Your task to perform on an android device: check battery use Image 0: 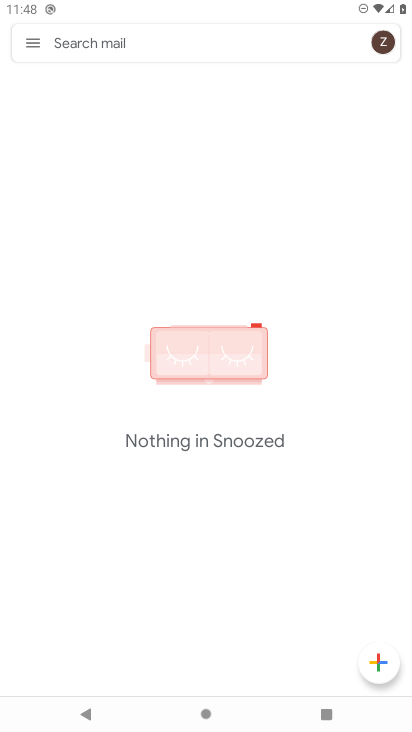
Step 0: press home button
Your task to perform on an android device: check battery use Image 1: 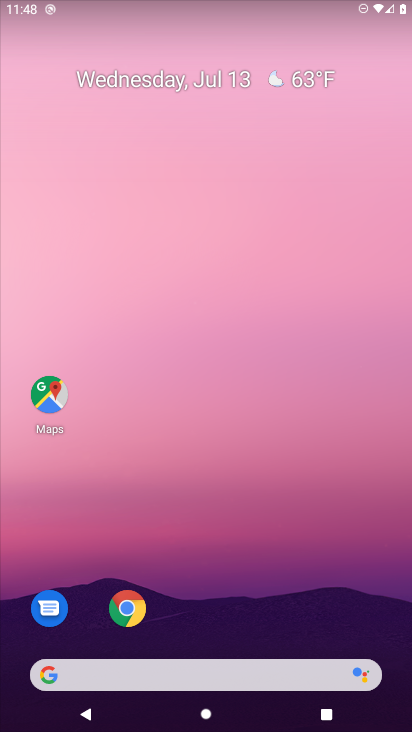
Step 1: drag from (225, 631) to (236, 221)
Your task to perform on an android device: check battery use Image 2: 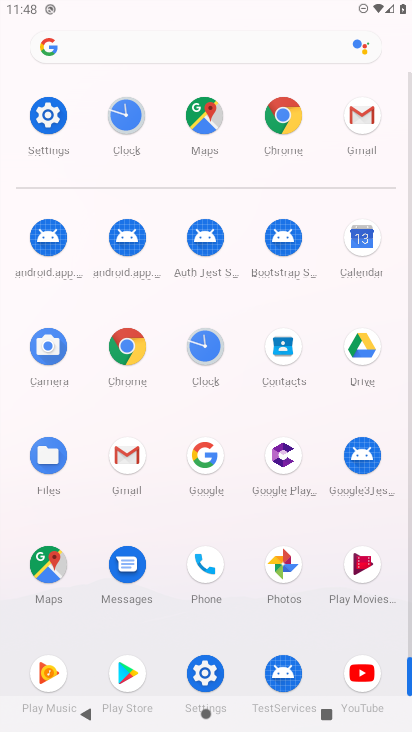
Step 2: click (47, 116)
Your task to perform on an android device: check battery use Image 3: 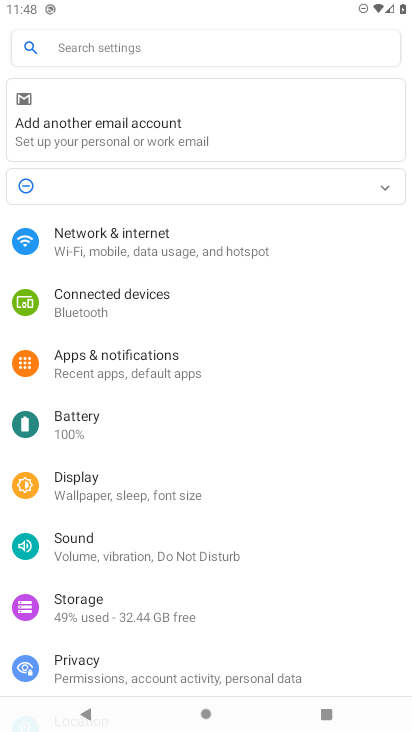
Step 3: click (71, 419)
Your task to perform on an android device: check battery use Image 4: 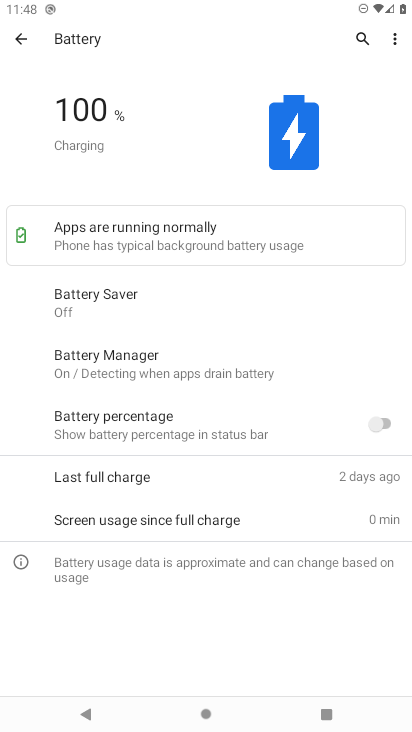
Step 4: click (397, 35)
Your task to perform on an android device: check battery use Image 5: 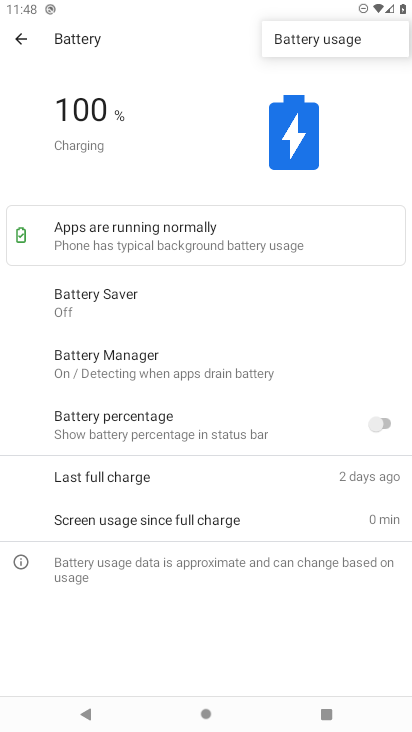
Step 5: click (317, 42)
Your task to perform on an android device: check battery use Image 6: 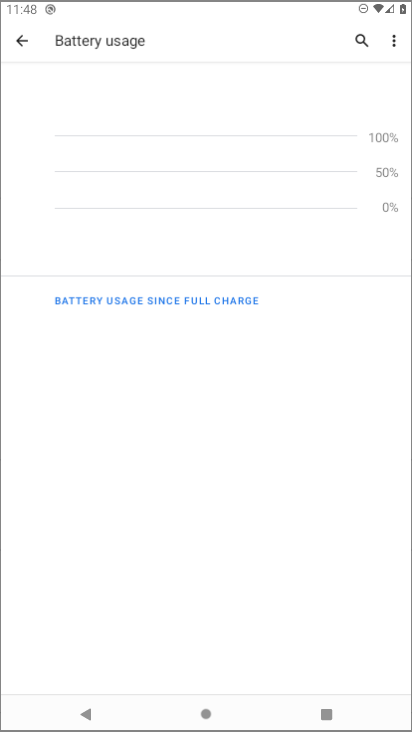
Step 6: click (321, 50)
Your task to perform on an android device: check battery use Image 7: 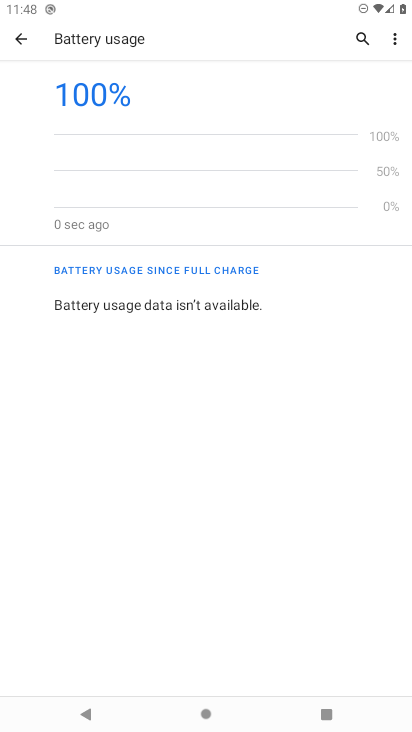
Step 7: task complete